Your task to perform on an android device: turn notification dots off Image 0: 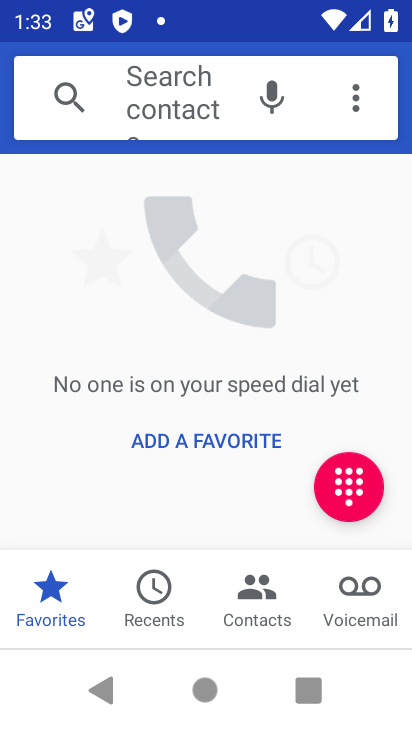
Step 0: press home button
Your task to perform on an android device: turn notification dots off Image 1: 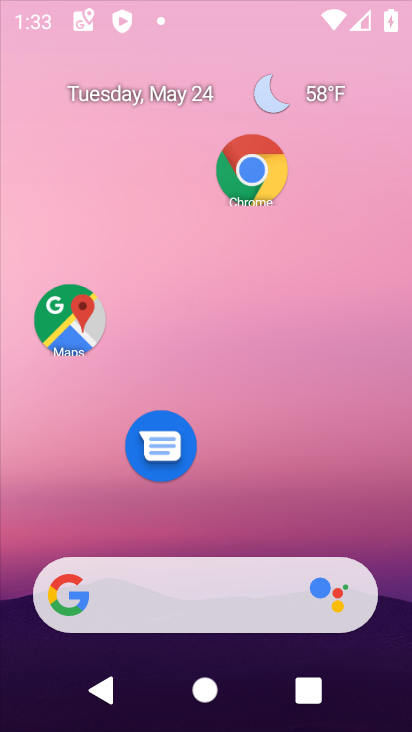
Step 1: drag from (270, 622) to (246, 165)
Your task to perform on an android device: turn notification dots off Image 2: 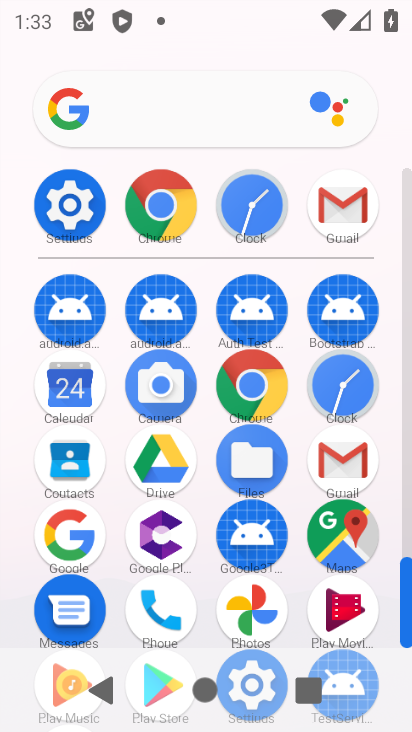
Step 2: click (71, 219)
Your task to perform on an android device: turn notification dots off Image 3: 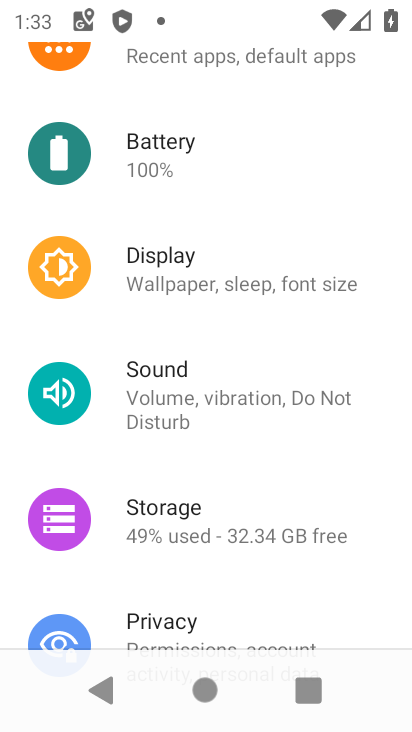
Step 3: drag from (209, 495) to (226, 217)
Your task to perform on an android device: turn notification dots off Image 4: 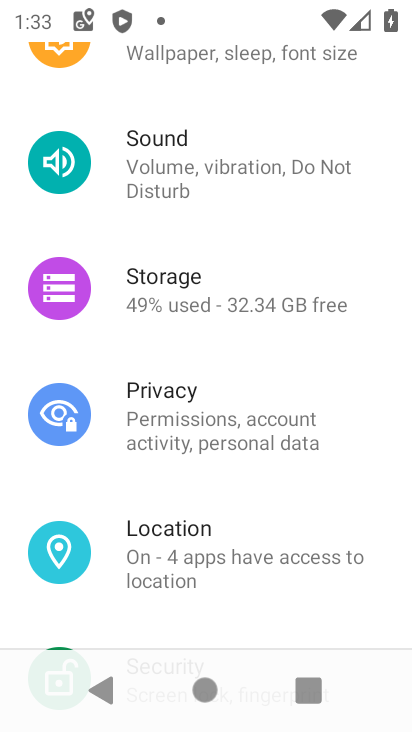
Step 4: drag from (217, 515) to (212, 290)
Your task to perform on an android device: turn notification dots off Image 5: 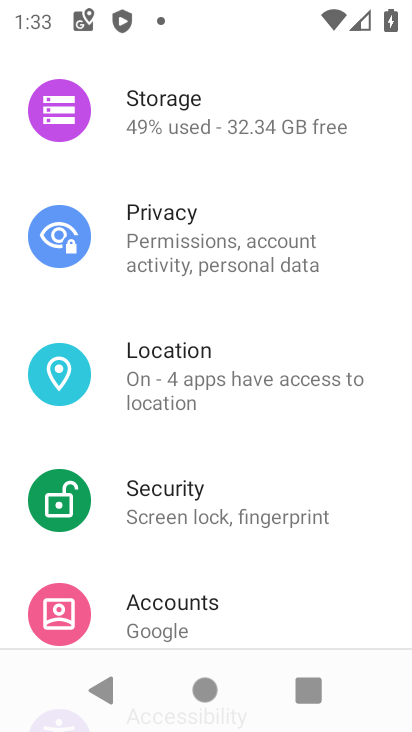
Step 5: drag from (212, 247) to (209, 528)
Your task to perform on an android device: turn notification dots off Image 6: 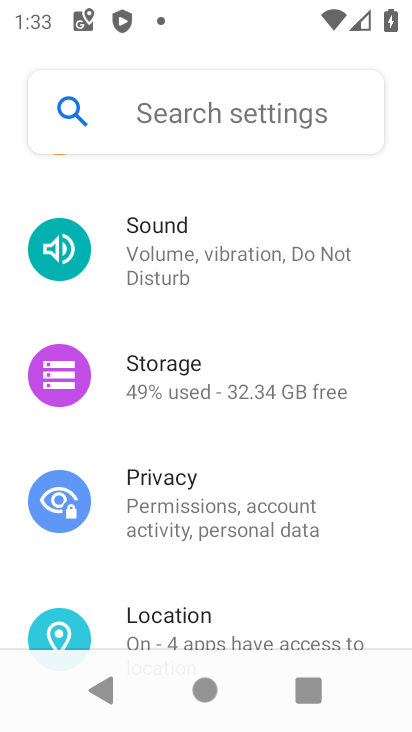
Step 6: drag from (211, 252) to (172, 405)
Your task to perform on an android device: turn notification dots off Image 7: 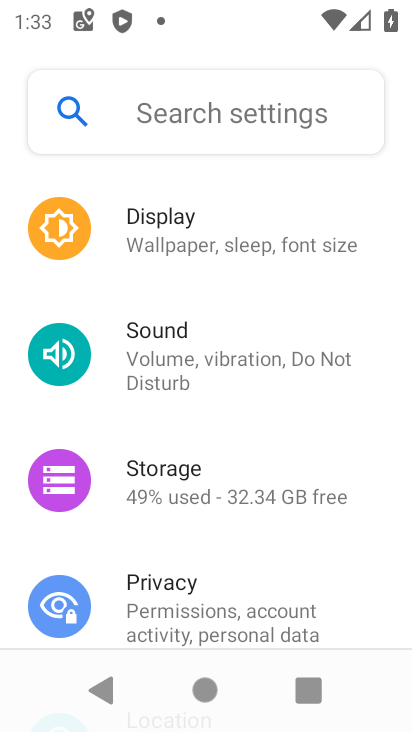
Step 7: drag from (172, 530) to (203, 322)
Your task to perform on an android device: turn notification dots off Image 8: 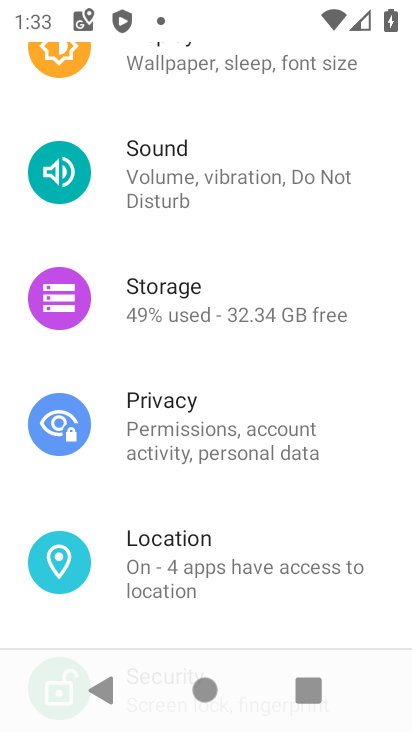
Step 8: drag from (192, 568) to (221, 386)
Your task to perform on an android device: turn notification dots off Image 9: 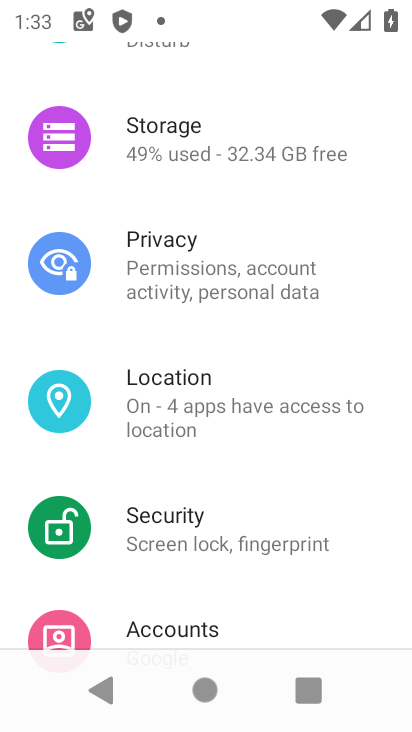
Step 9: drag from (177, 497) to (194, 340)
Your task to perform on an android device: turn notification dots off Image 10: 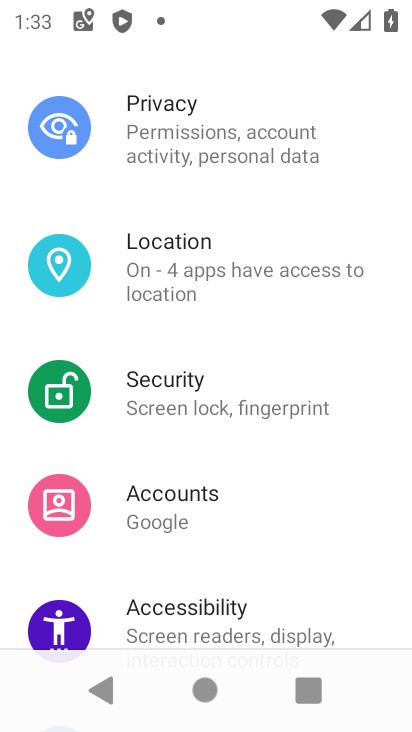
Step 10: drag from (213, 501) to (311, 731)
Your task to perform on an android device: turn notification dots off Image 11: 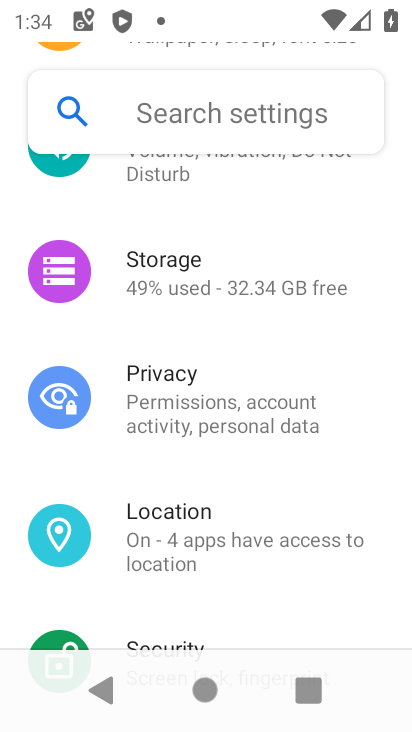
Step 11: drag from (175, 304) to (185, 579)
Your task to perform on an android device: turn notification dots off Image 12: 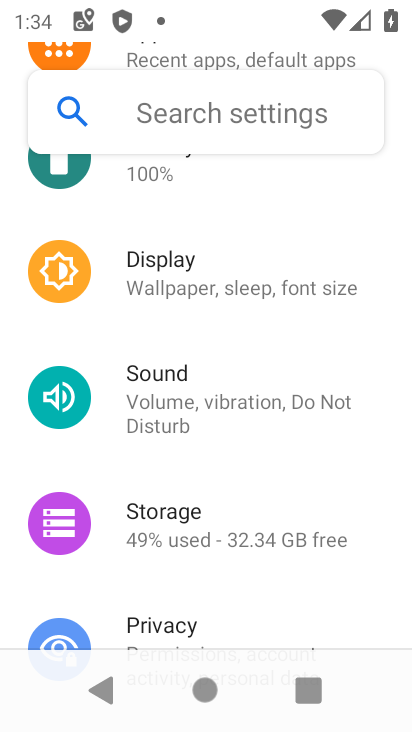
Step 12: drag from (202, 325) to (251, 477)
Your task to perform on an android device: turn notification dots off Image 13: 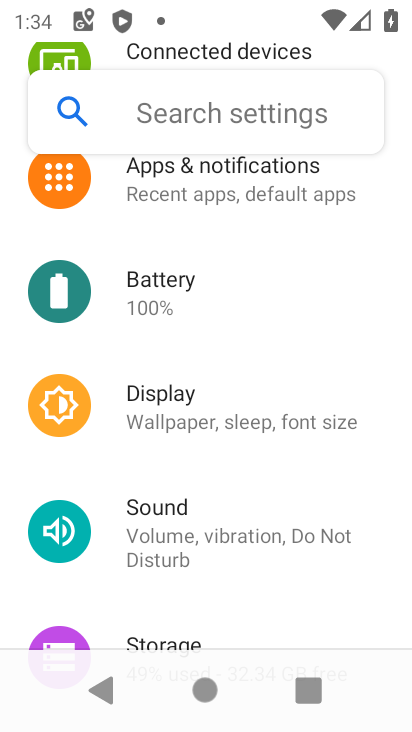
Step 13: click (208, 205)
Your task to perform on an android device: turn notification dots off Image 14: 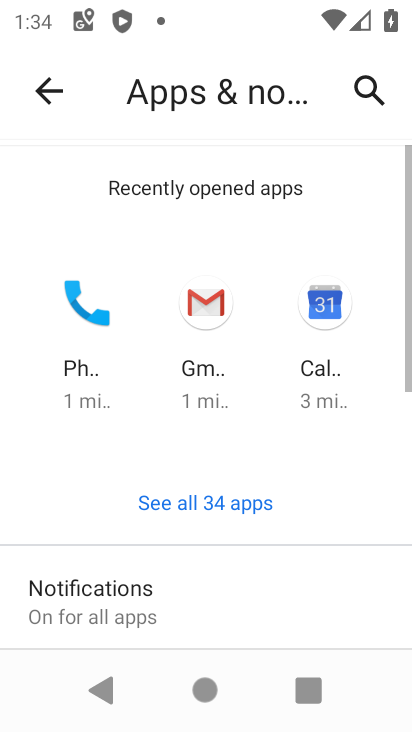
Step 14: drag from (186, 543) to (192, 240)
Your task to perform on an android device: turn notification dots off Image 15: 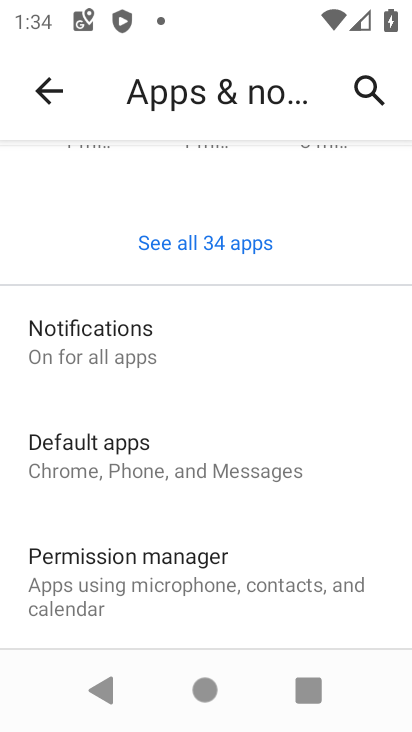
Step 15: click (183, 352)
Your task to perform on an android device: turn notification dots off Image 16: 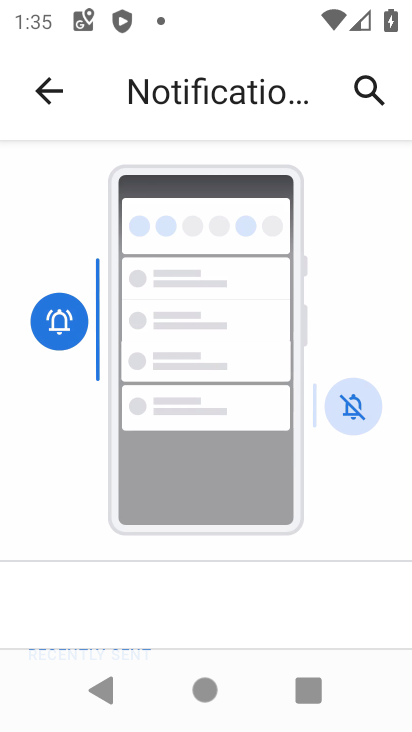
Step 16: drag from (239, 519) to (226, 195)
Your task to perform on an android device: turn notification dots off Image 17: 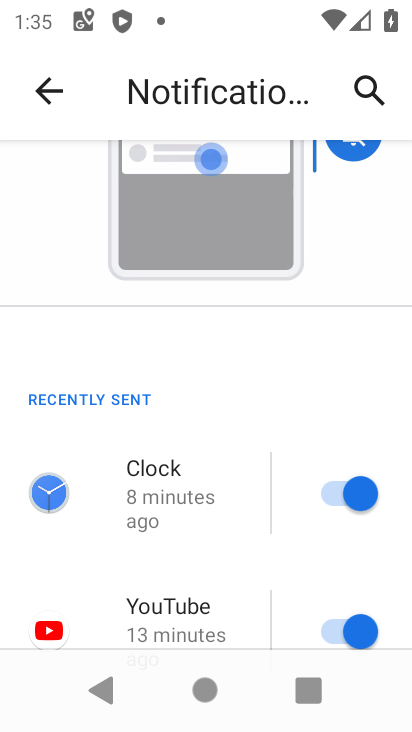
Step 17: drag from (160, 539) to (142, 42)
Your task to perform on an android device: turn notification dots off Image 18: 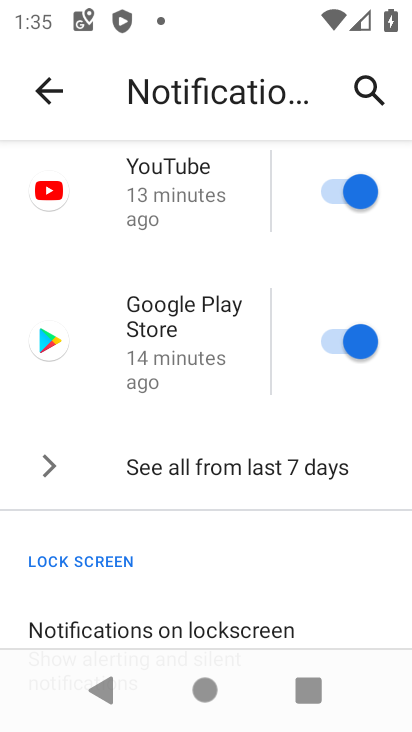
Step 18: drag from (205, 525) to (162, 102)
Your task to perform on an android device: turn notification dots off Image 19: 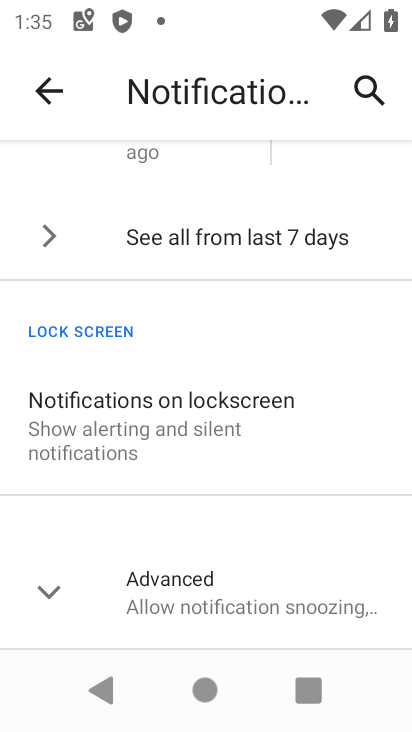
Step 19: click (233, 614)
Your task to perform on an android device: turn notification dots off Image 20: 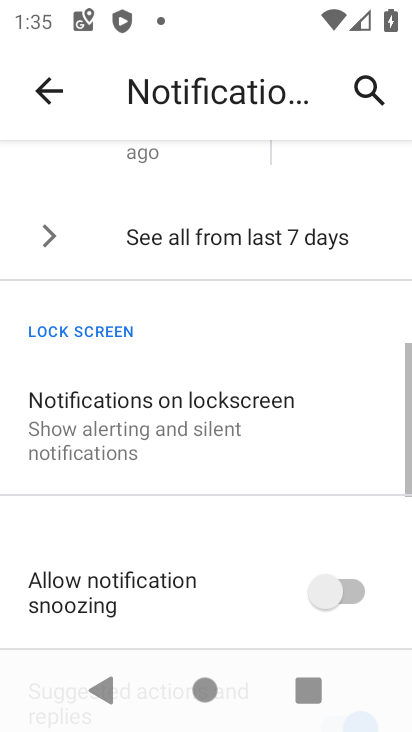
Step 20: task complete